Your task to perform on an android device: Show me popular videos on Youtube Image 0: 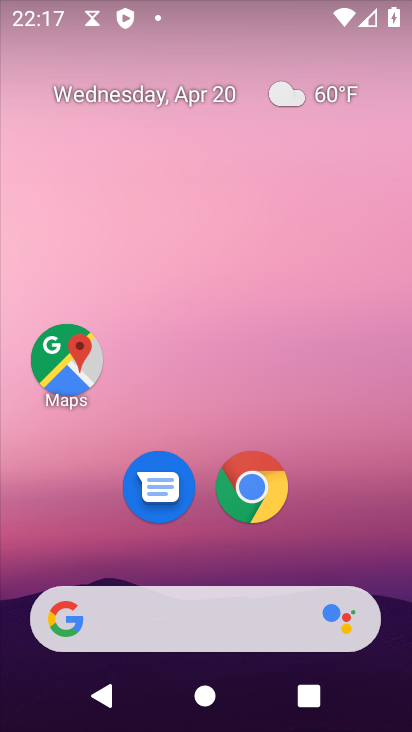
Step 0: drag from (131, 464) to (324, 155)
Your task to perform on an android device: Show me popular videos on Youtube Image 1: 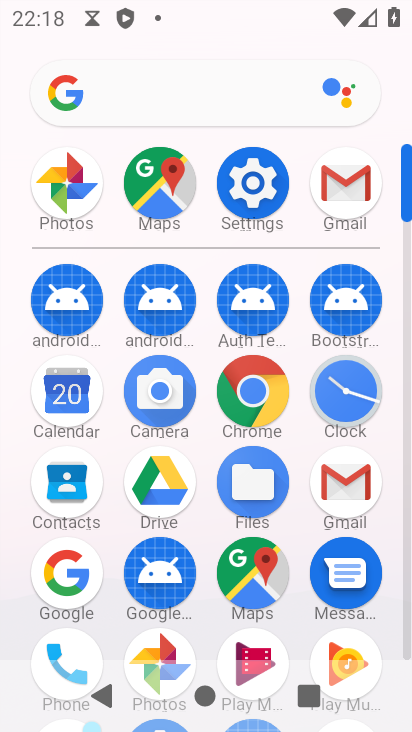
Step 1: drag from (183, 627) to (333, 238)
Your task to perform on an android device: Show me popular videos on Youtube Image 2: 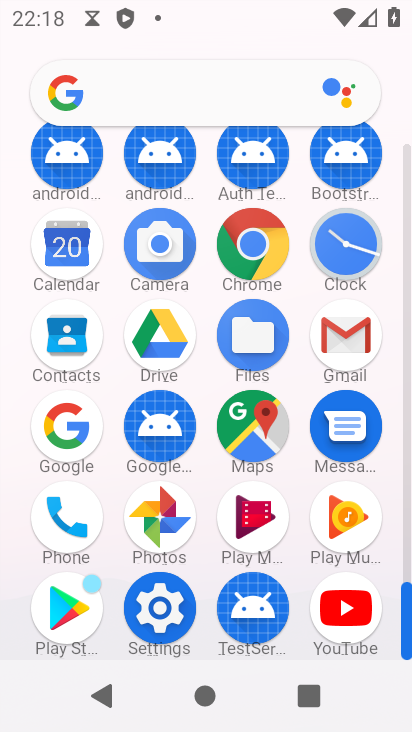
Step 2: click (321, 603)
Your task to perform on an android device: Show me popular videos on Youtube Image 3: 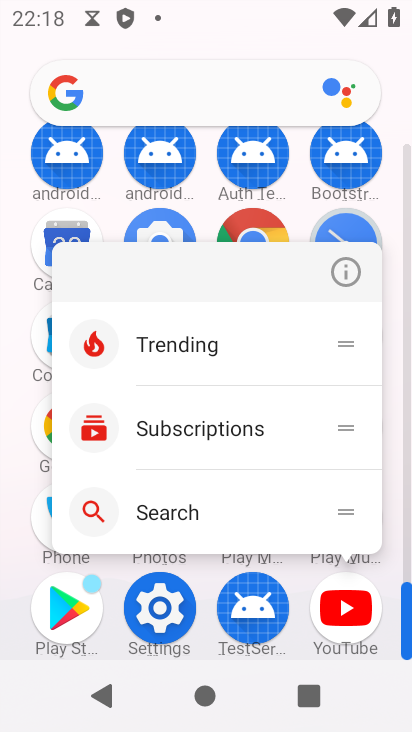
Step 3: click (348, 589)
Your task to perform on an android device: Show me popular videos on Youtube Image 4: 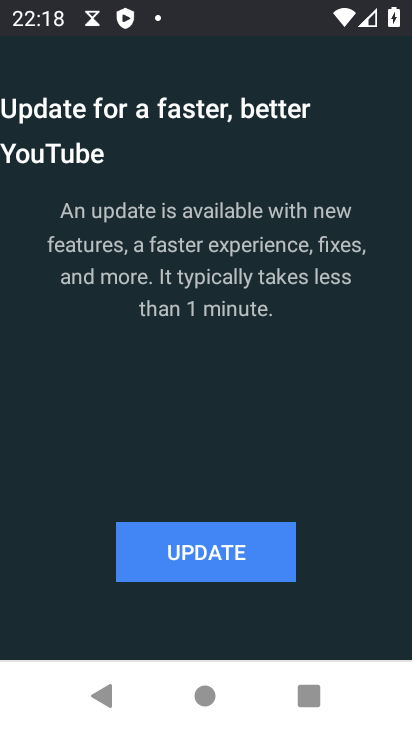
Step 4: click (149, 573)
Your task to perform on an android device: Show me popular videos on Youtube Image 5: 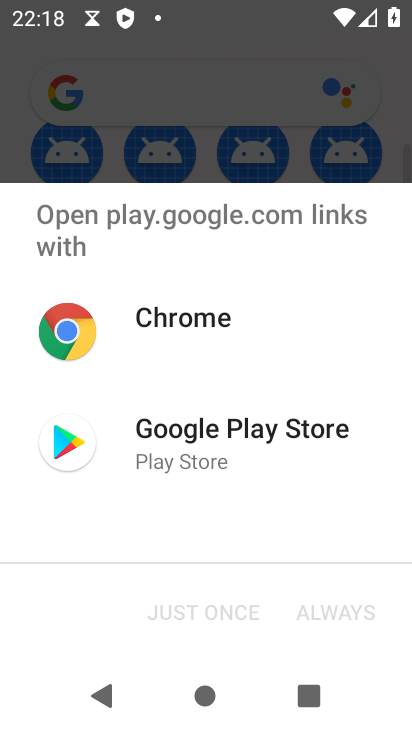
Step 5: press back button
Your task to perform on an android device: Show me popular videos on Youtube Image 6: 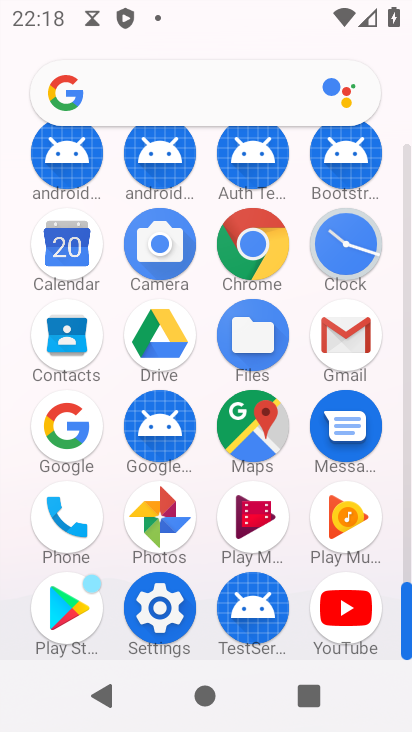
Step 6: click (355, 617)
Your task to perform on an android device: Show me popular videos on Youtube Image 7: 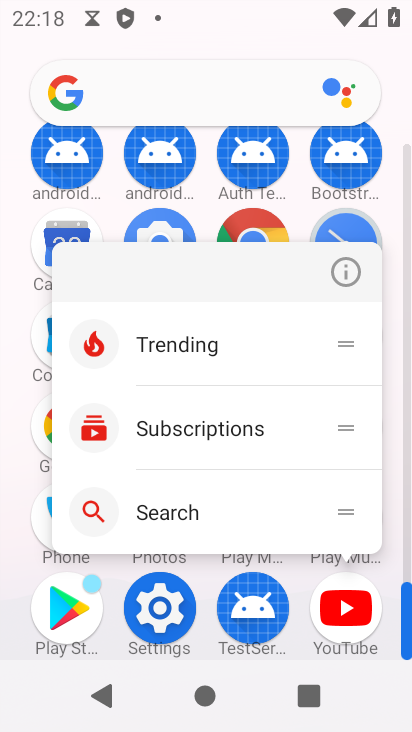
Step 7: click (349, 603)
Your task to perform on an android device: Show me popular videos on Youtube Image 8: 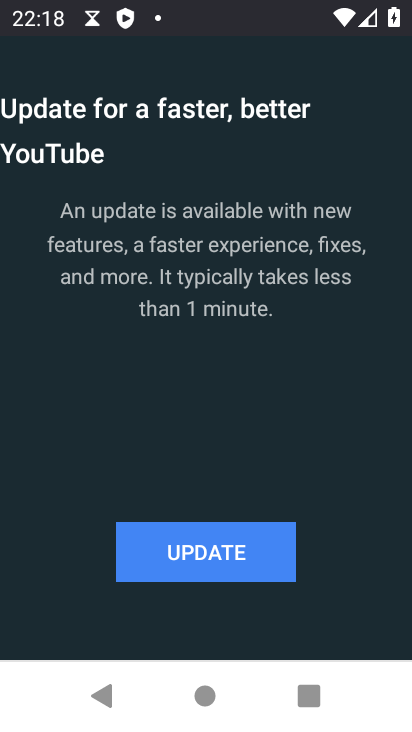
Step 8: drag from (328, 616) to (365, 364)
Your task to perform on an android device: Show me popular videos on Youtube Image 9: 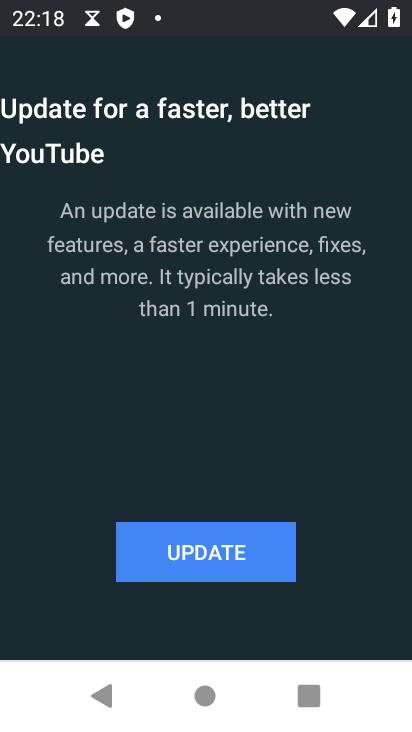
Step 9: click (235, 546)
Your task to perform on an android device: Show me popular videos on Youtube Image 10: 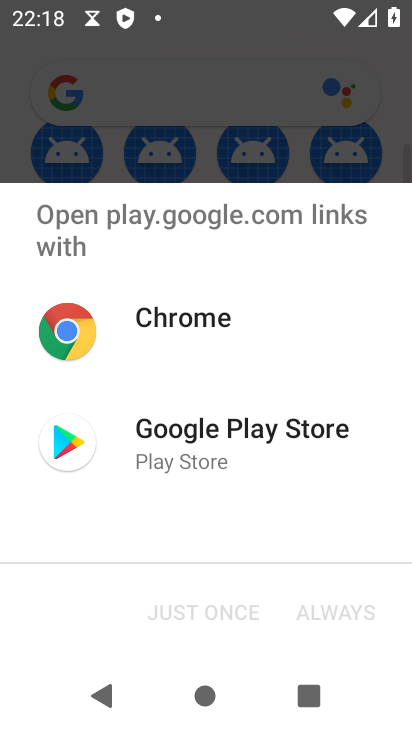
Step 10: click (276, 451)
Your task to perform on an android device: Show me popular videos on Youtube Image 11: 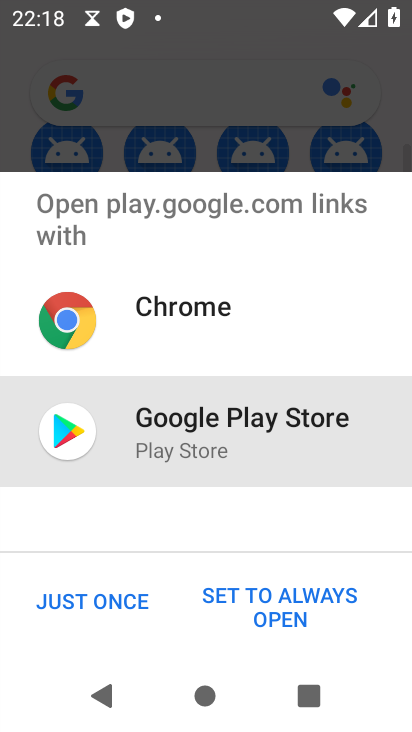
Step 11: click (76, 597)
Your task to perform on an android device: Show me popular videos on Youtube Image 12: 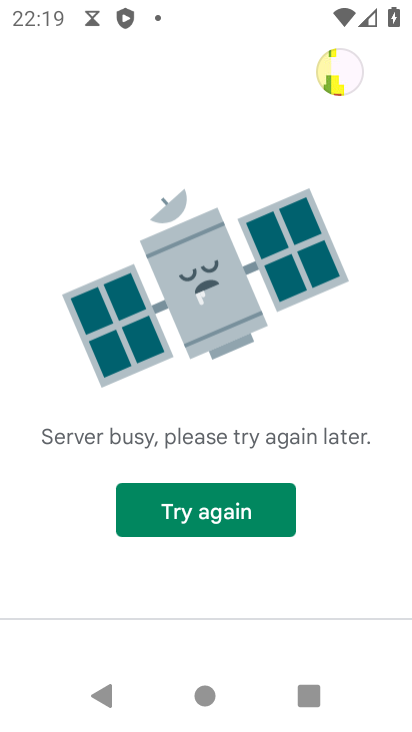
Step 12: click (179, 491)
Your task to perform on an android device: Show me popular videos on Youtube Image 13: 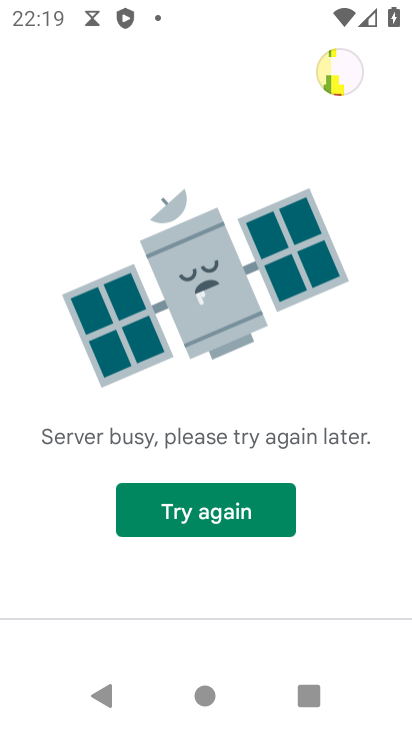
Step 13: click (173, 506)
Your task to perform on an android device: Show me popular videos on Youtube Image 14: 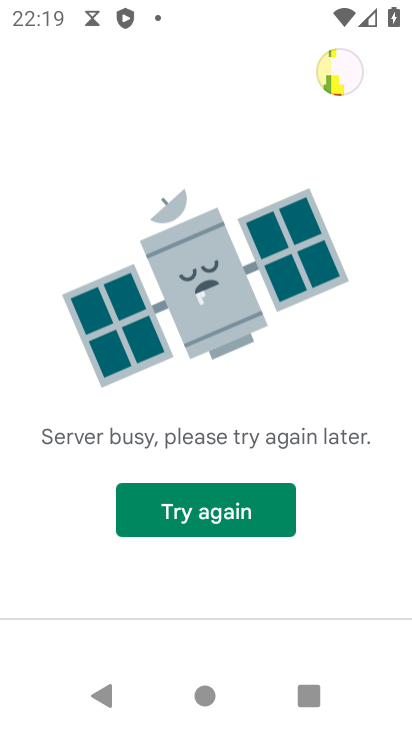
Step 14: task complete